Your task to perform on an android device: empty trash in google photos Image 0: 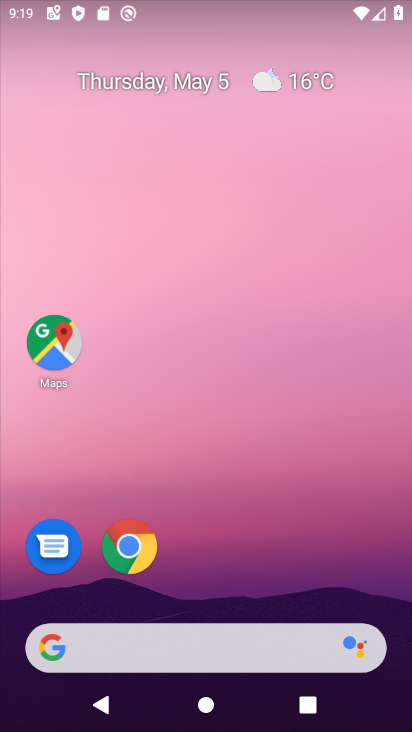
Step 0: drag from (193, 645) to (316, 122)
Your task to perform on an android device: empty trash in google photos Image 1: 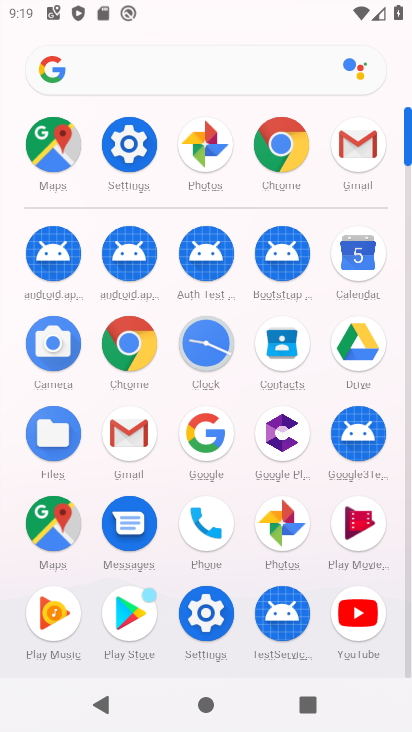
Step 1: click (360, 154)
Your task to perform on an android device: empty trash in google photos Image 2: 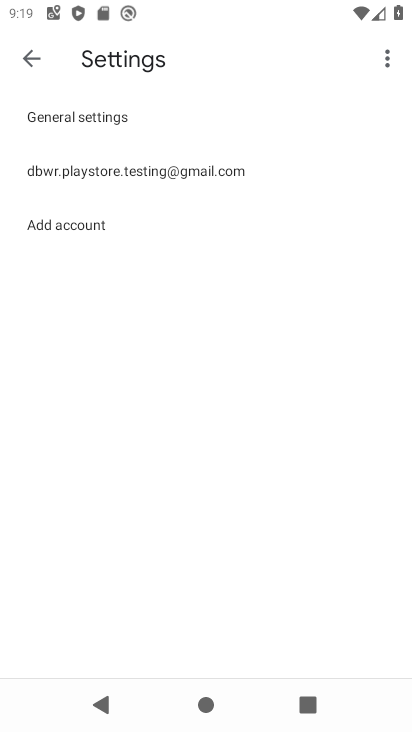
Step 2: click (38, 61)
Your task to perform on an android device: empty trash in google photos Image 3: 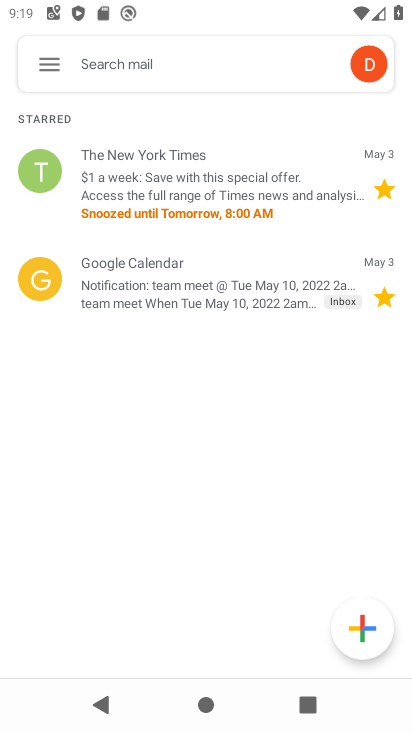
Step 3: click (51, 65)
Your task to perform on an android device: empty trash in google photos Image 4: 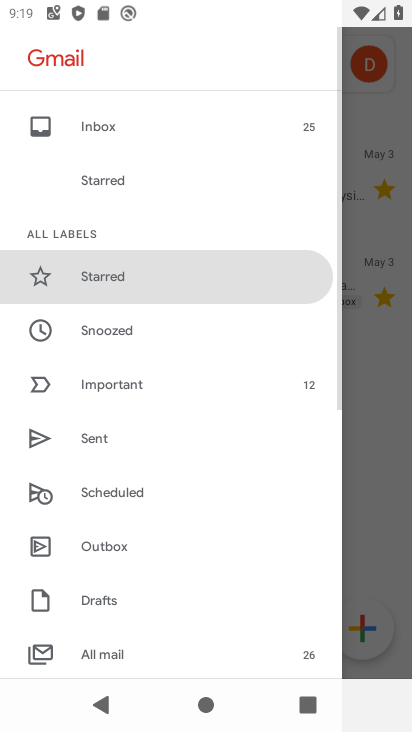
Step 4: drag from (162, 637) to (230, 265)
Your task to perform on an android device: empty trash in google photos Image 5: 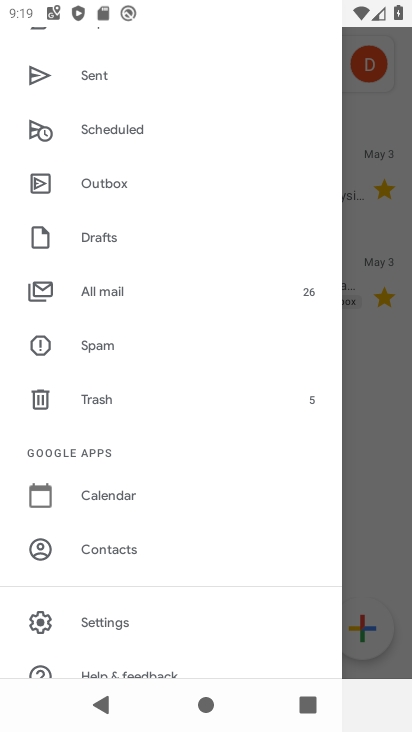
Step 5: click (123, 400)
Your task to perform on an android device: empty trash in google photos Image 6: 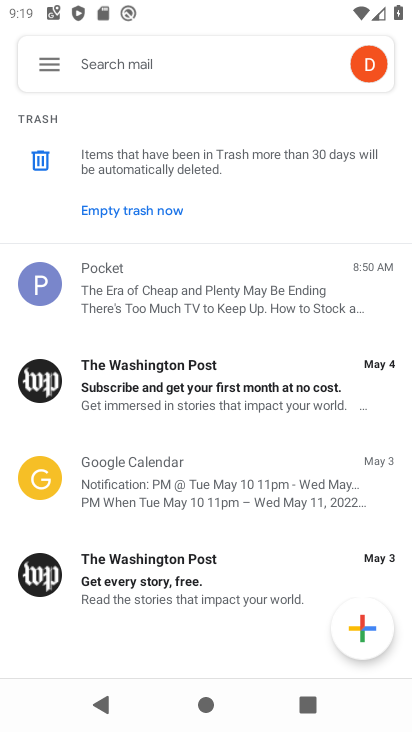
Step 6: drag from (159, 588) to (380, 123)
Your task to perform on an android device: empty trash in google photos Image 7: 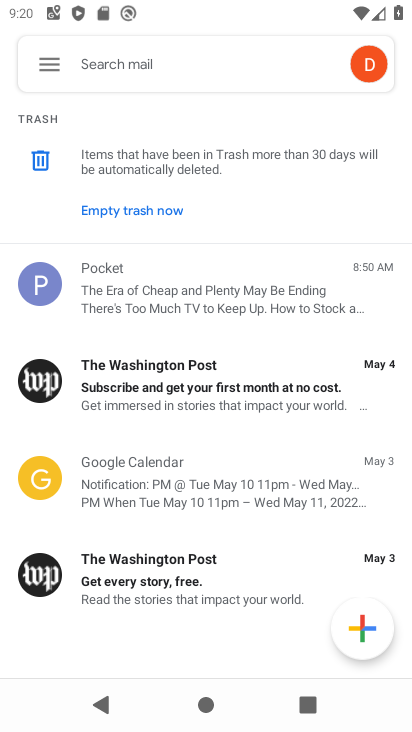
Step 7: click (140, 210)
Your task to perform on an android device: empty trash in google photos Image 8: 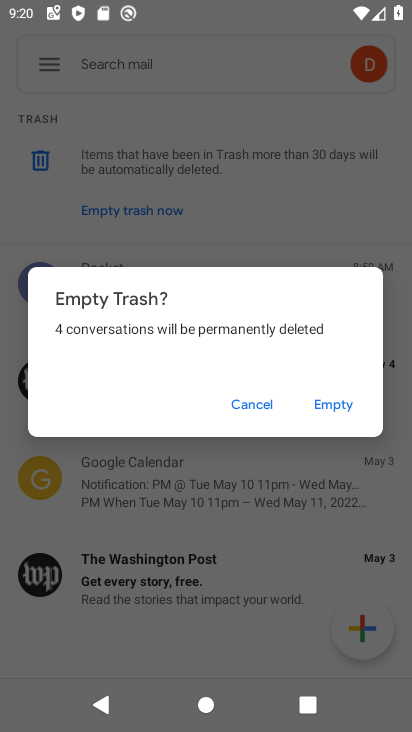
Step 8: click (329, 407)
Your task to perform on an android device: empty trash in google photos Image 9: 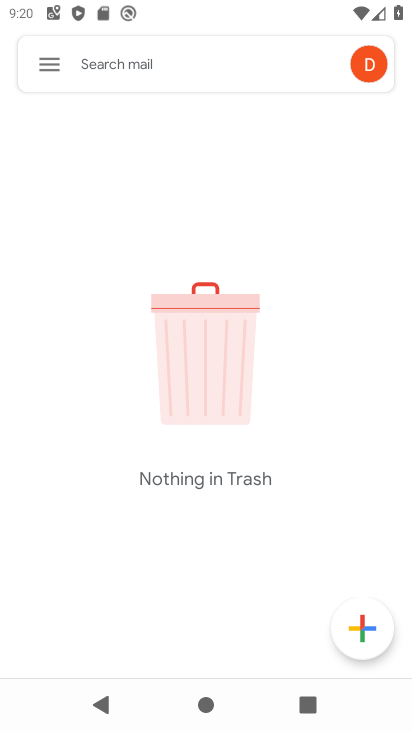
Step 9: task complete